Your task to perform on an android device: set an alarm Image 0: 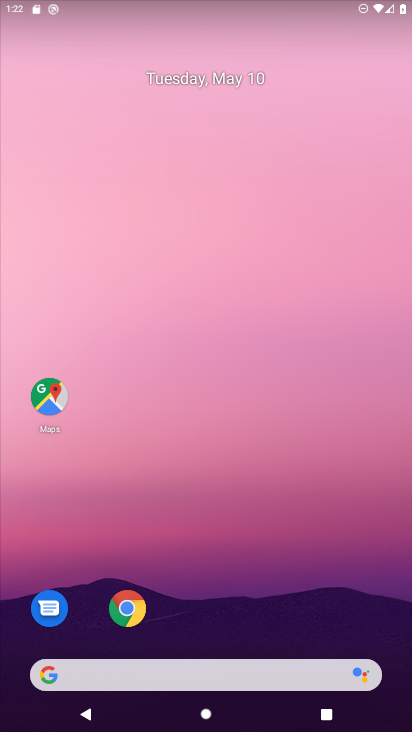
Step 0: drag from (303, 566) to (294, 103)
Your task to perform on an android device: set an alarm Image 1: 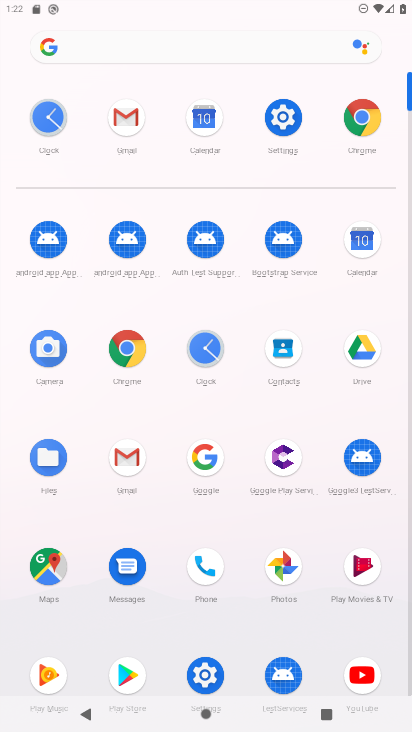
Step 1: click (207, 352)
Your task to perform on an android device: set an alarm Image 2: 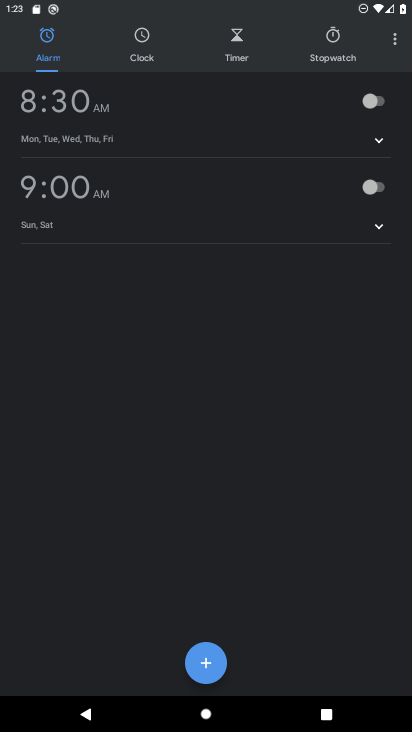
Step 2: click (202, 665)
Your task to perform on an android device: set an alarm Image 3: 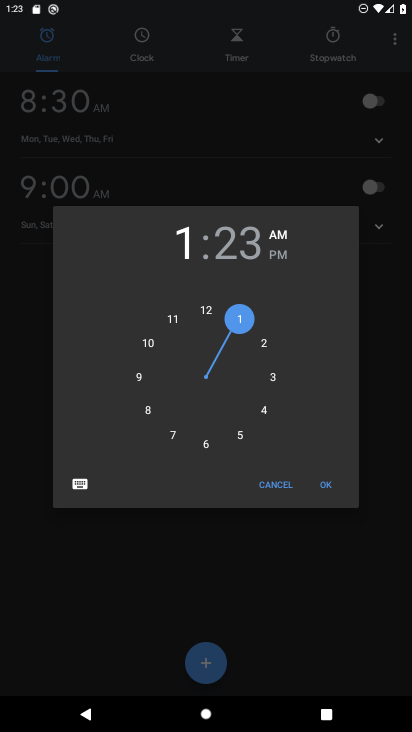
Step 3: click (322, 486)
Your task to perform on an android device: set an alarm Image 4: 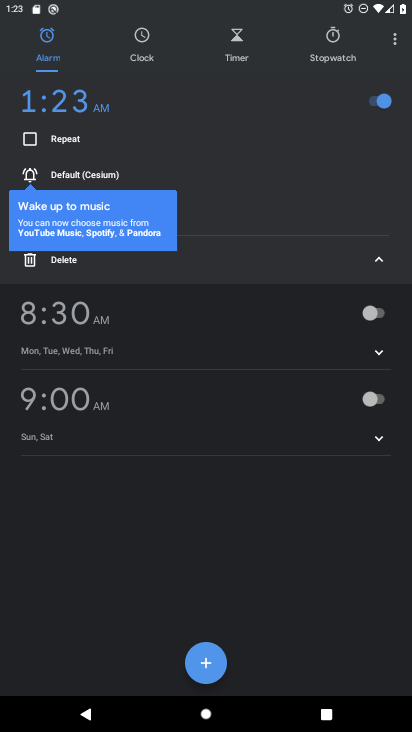
Step 4: task complete